Your task to perform on an android device: Clear the cart on bestbuy. Add "logitech g pro" to the cart on bestbuy, then select checkout. Image 0: 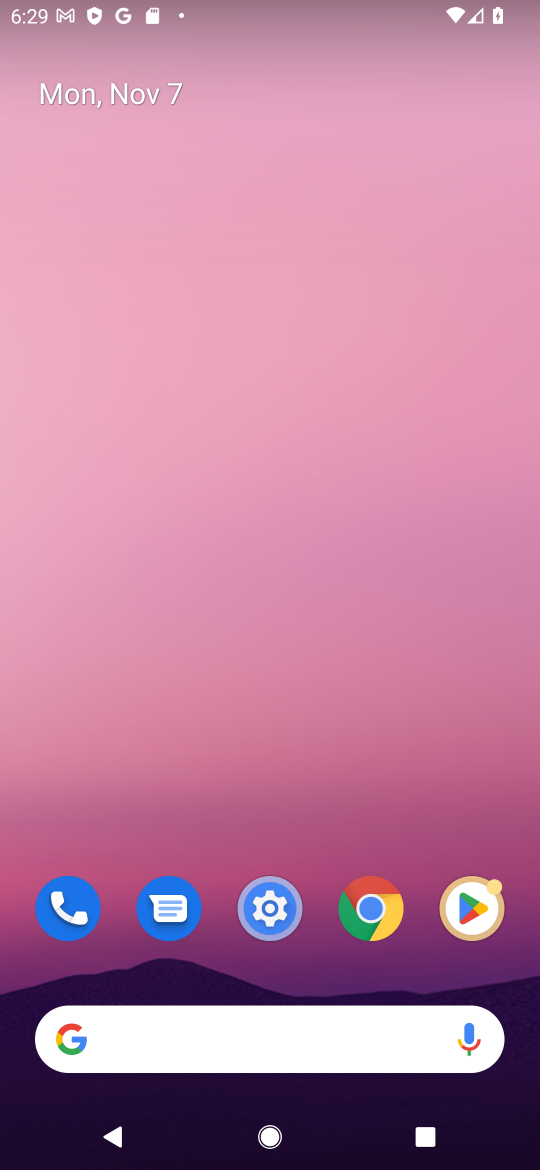
Step 0: click (277, 1052)
Your task to perform on an android device: Clear the cart on bestbuy. Add "logitech g pro" to the cart on bestbuy, then select checkout. Image 1: 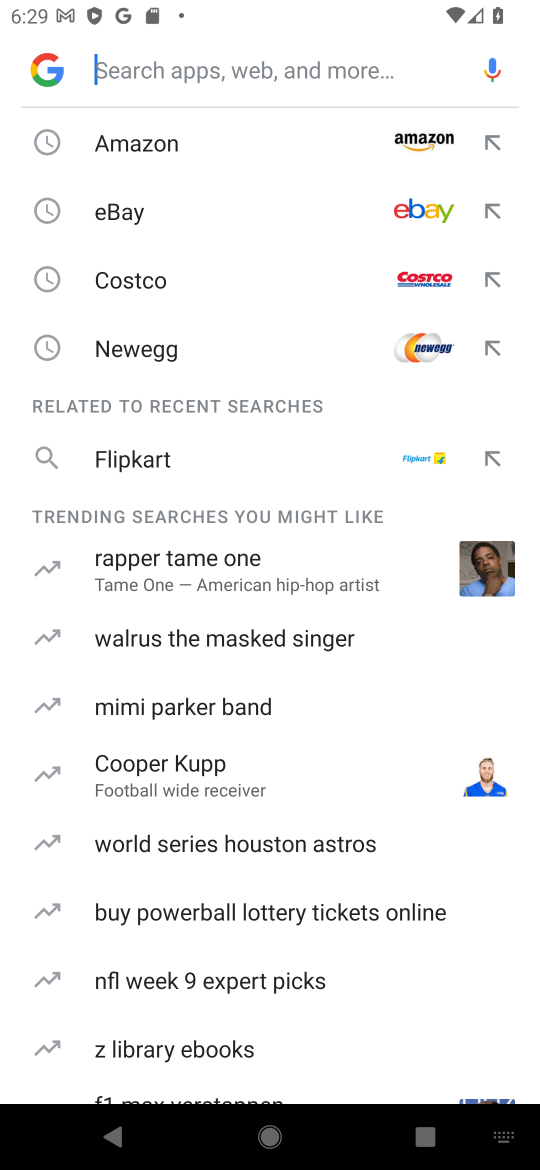
Step 1: type "best buy"
Your task to perform on an android device: Clear the cart on bestbuy. Add "logitech g pro" to the cart on bestbuy, then select checkout. Image 2: 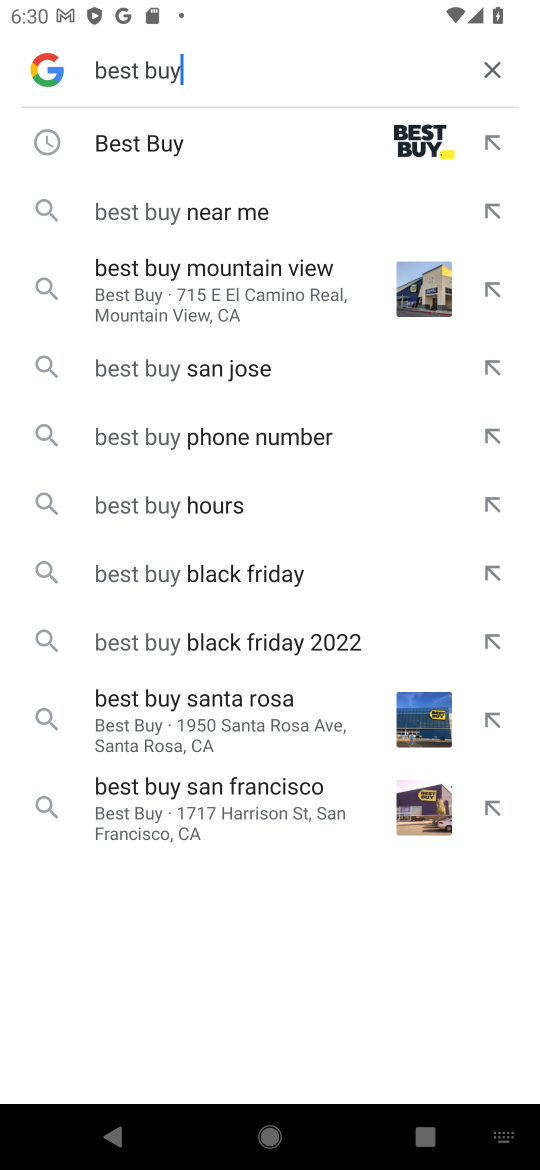
Step 2: click (153, 134)
Your task to perform on an android device: Clear the cart on bestbuy. Add "logitech g pro" to the cart on bestbuy, then select checkout. Image 3: 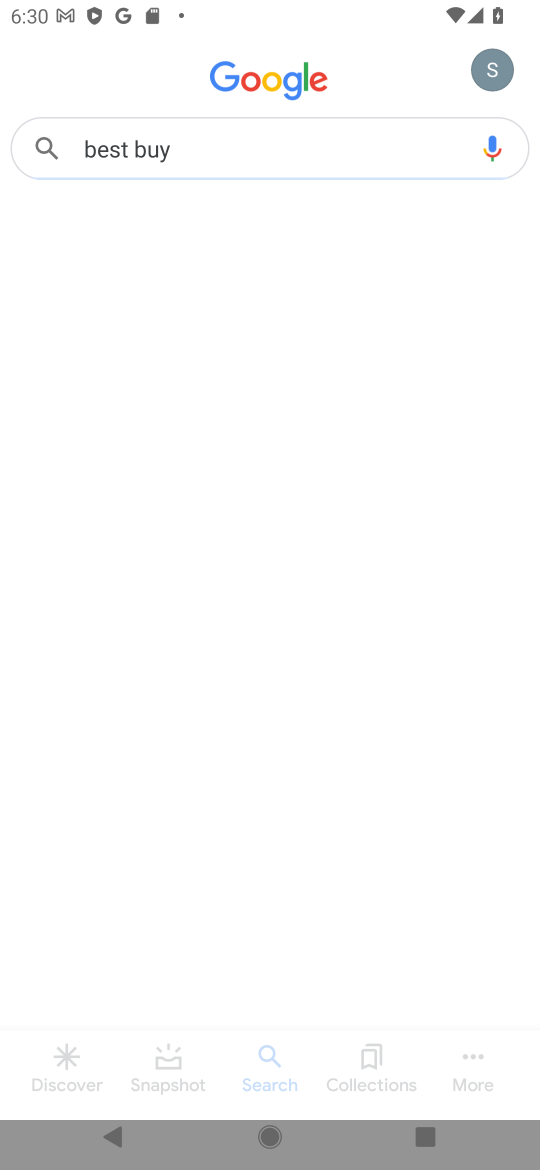
Step 3: task complete